Your task to perform on an android device: Open settings Image 0: 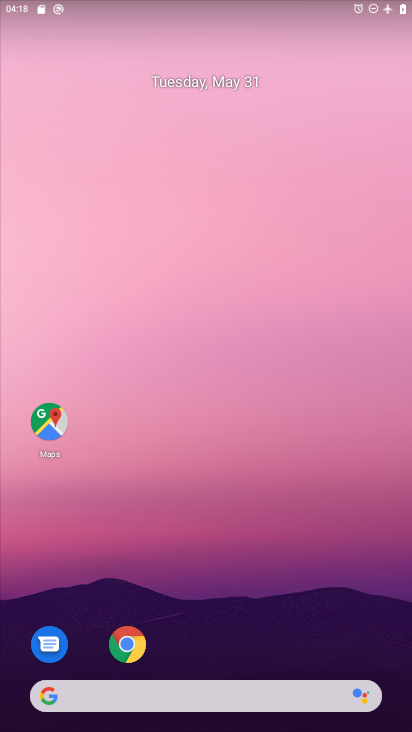
Step 0: drag from (274, 595) to (234, 83)
Your task to perform on an android device: Open settings Image 1: 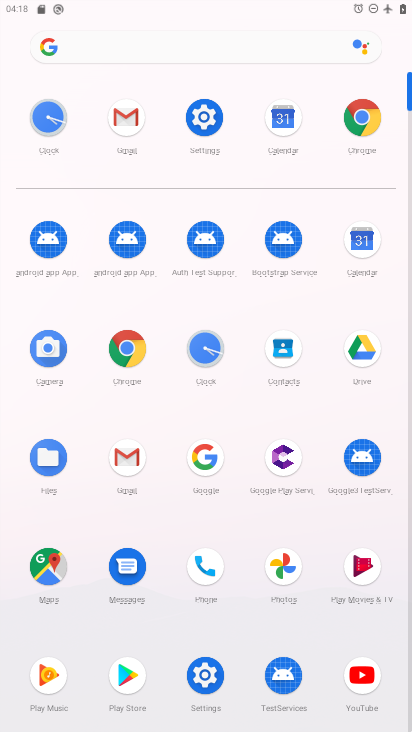
Step 1: click (211, 107)
Your task to perform on an android device: Open settings Image 2: 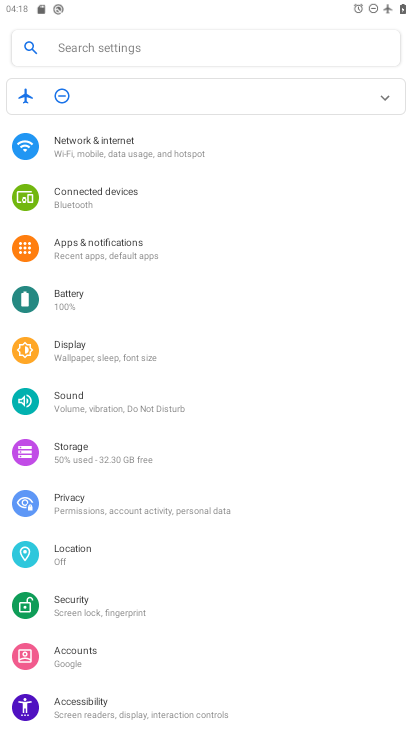
Step 2: task complete